Your task to perform on an android device: Toggle the flashlight Image 0: 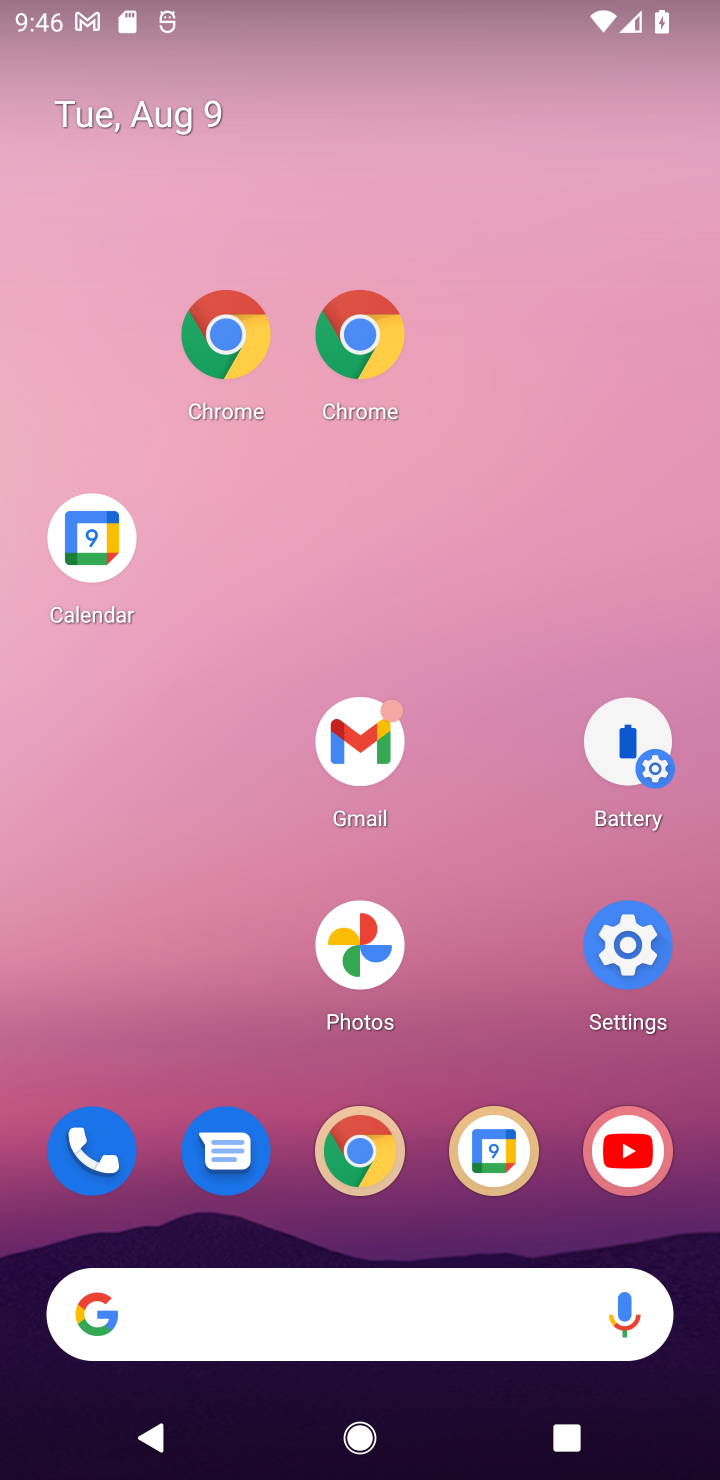
Step 0: drag from (508, 1414) to (358, 449)
Your task to perform on an android device: Toggle the flashlight Image 1: 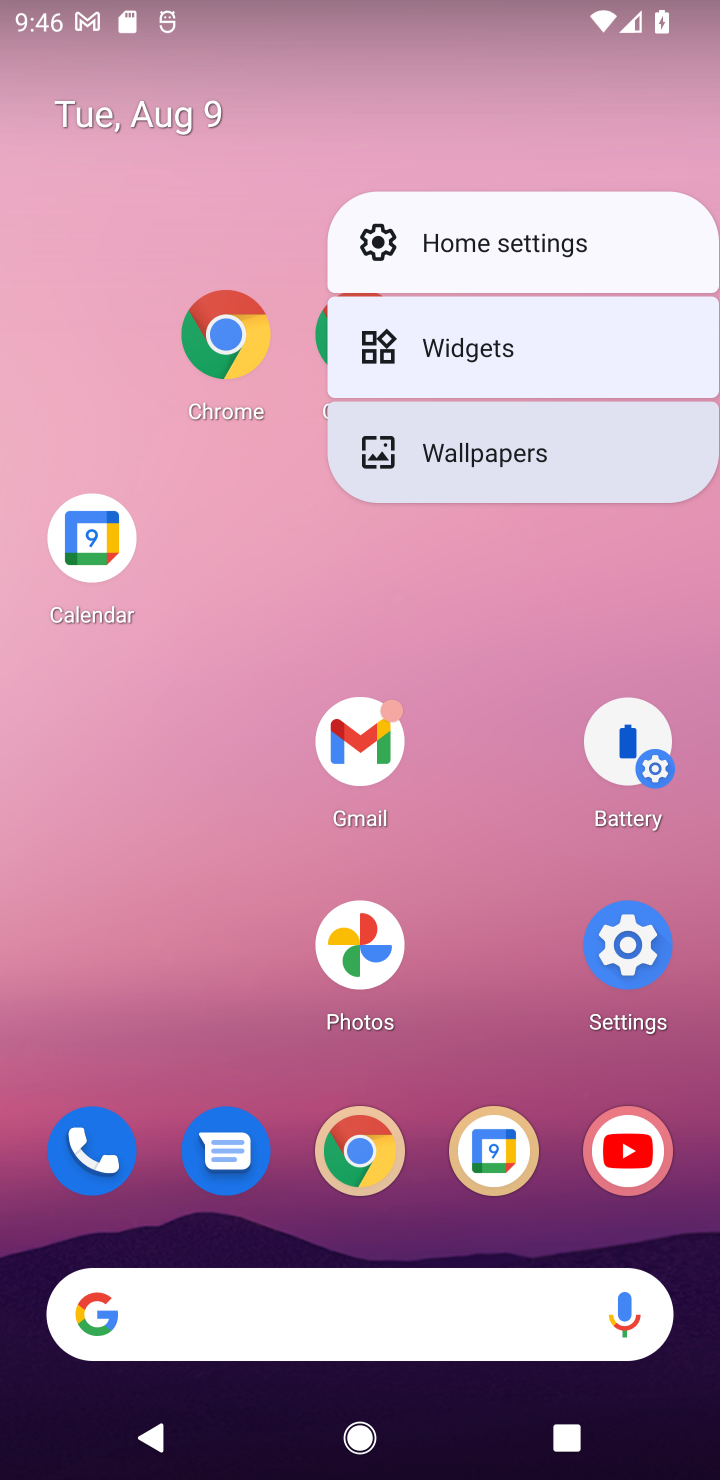
Step 1: drag from (296, 456) to (447, 664)
Your task to perform on an android device: Toggle the flashlight Image 2: 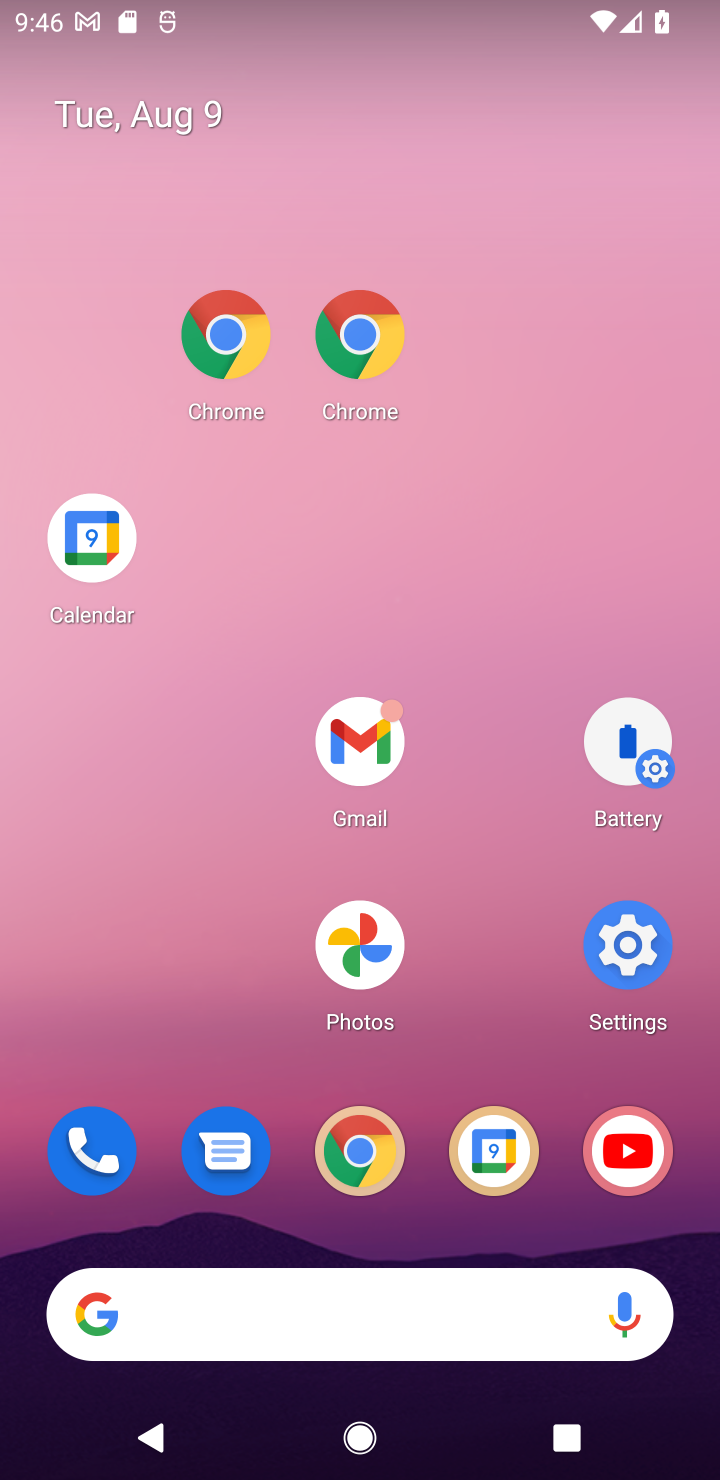
Step 2: click (391, 745)
Your task to perform on an android device: Toggle the flashlight Image 3: 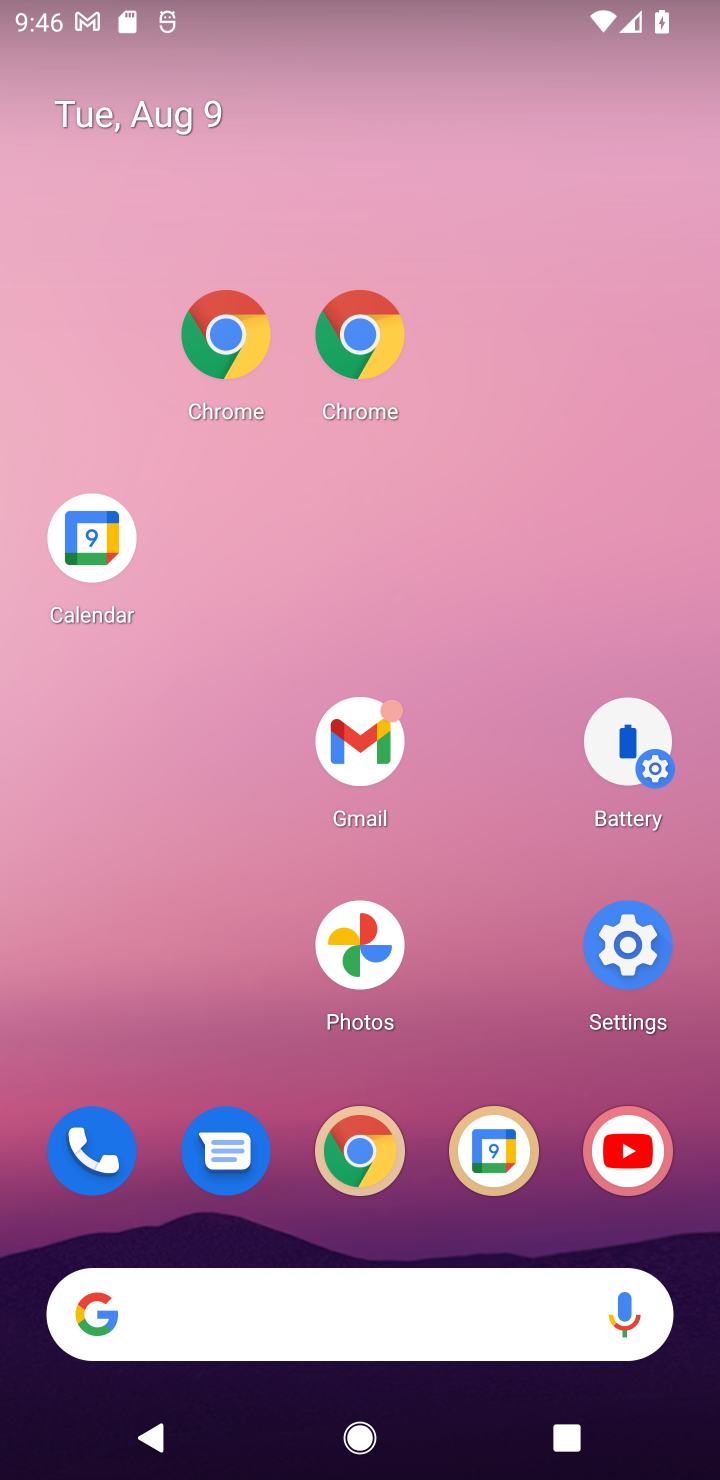
Step 3: drag from (375, 914) to (396, 605)
Your task to perform on an android device: Toggle the flashlight Image 4: 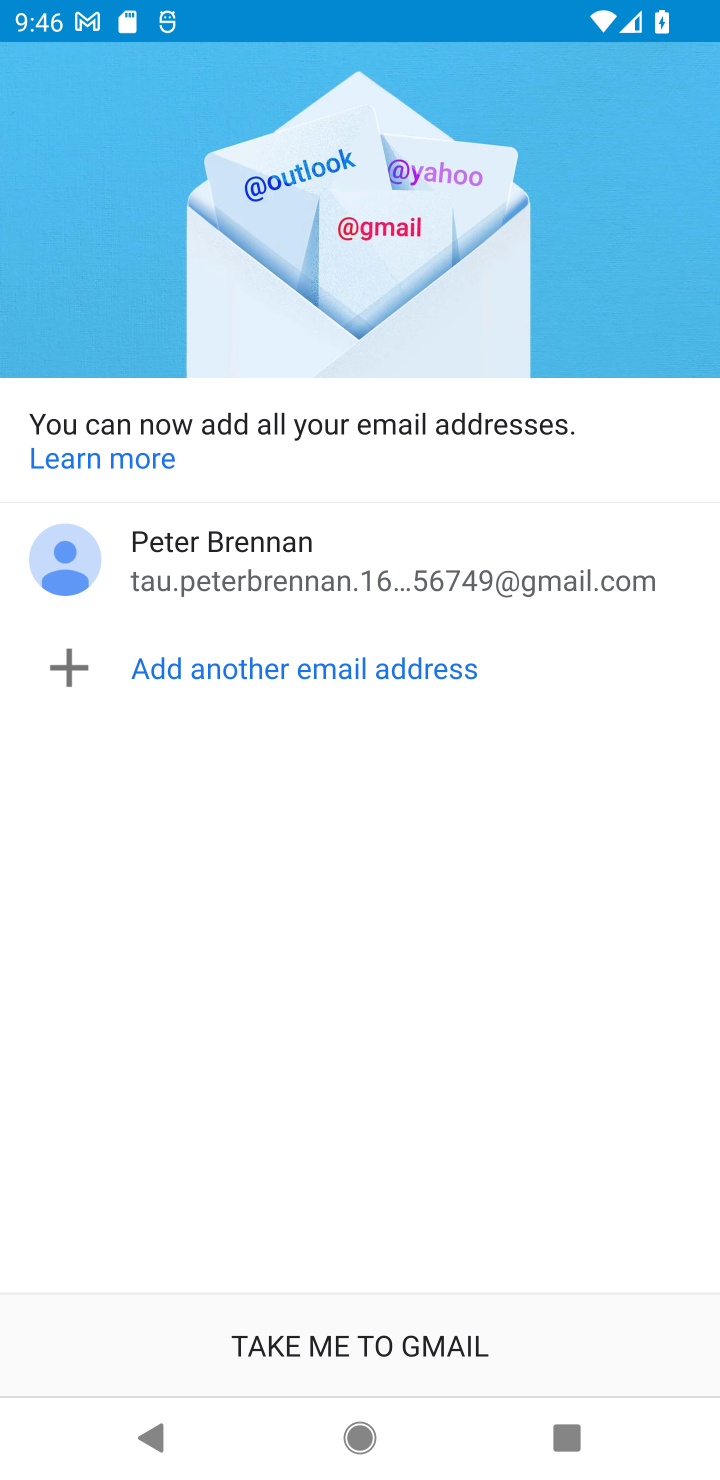
Step 4: drag from (528, 1025) to (528, 702)
Your task to perform on an android device: Toggle the flashlight Image 5: 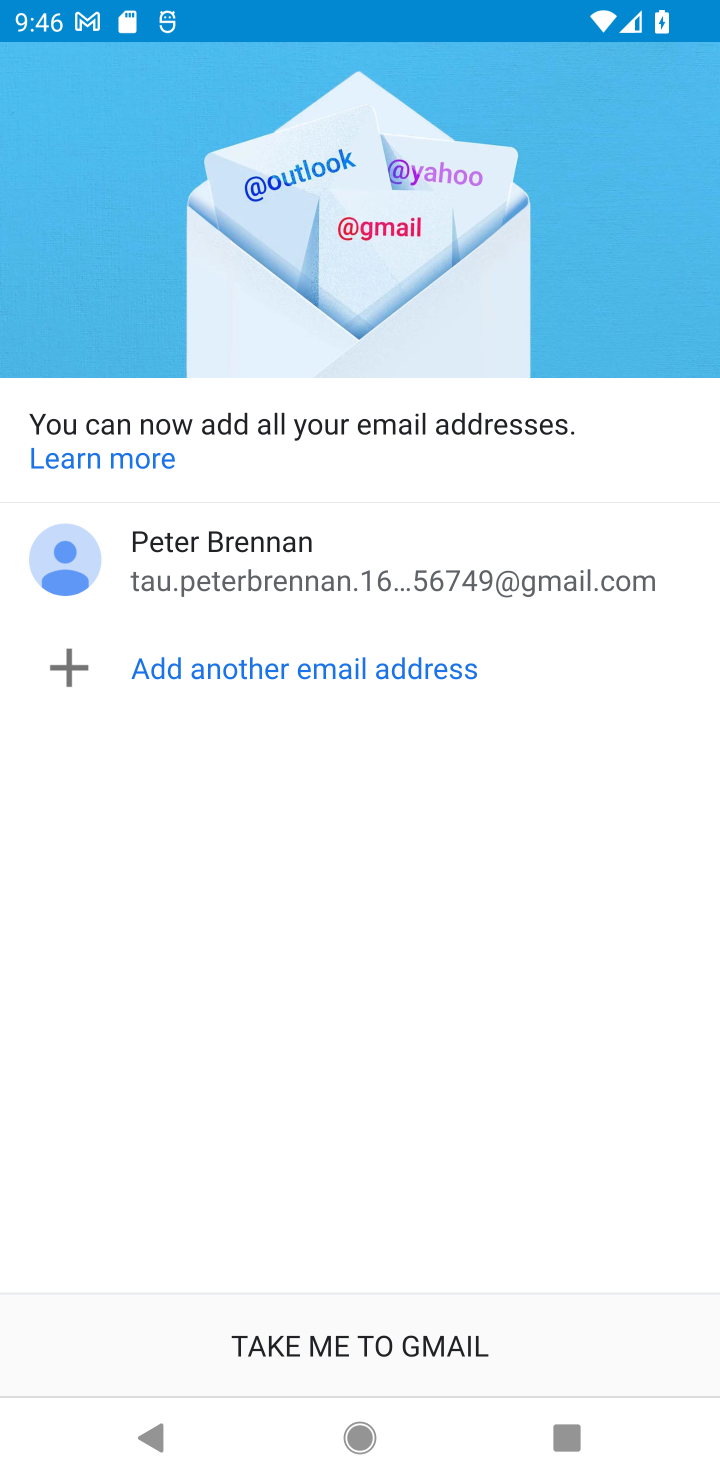
Step 5: drag from (645, 1084) to (685, 655)
Your task to perform on an android device: Toggle the flashlight Image 6: 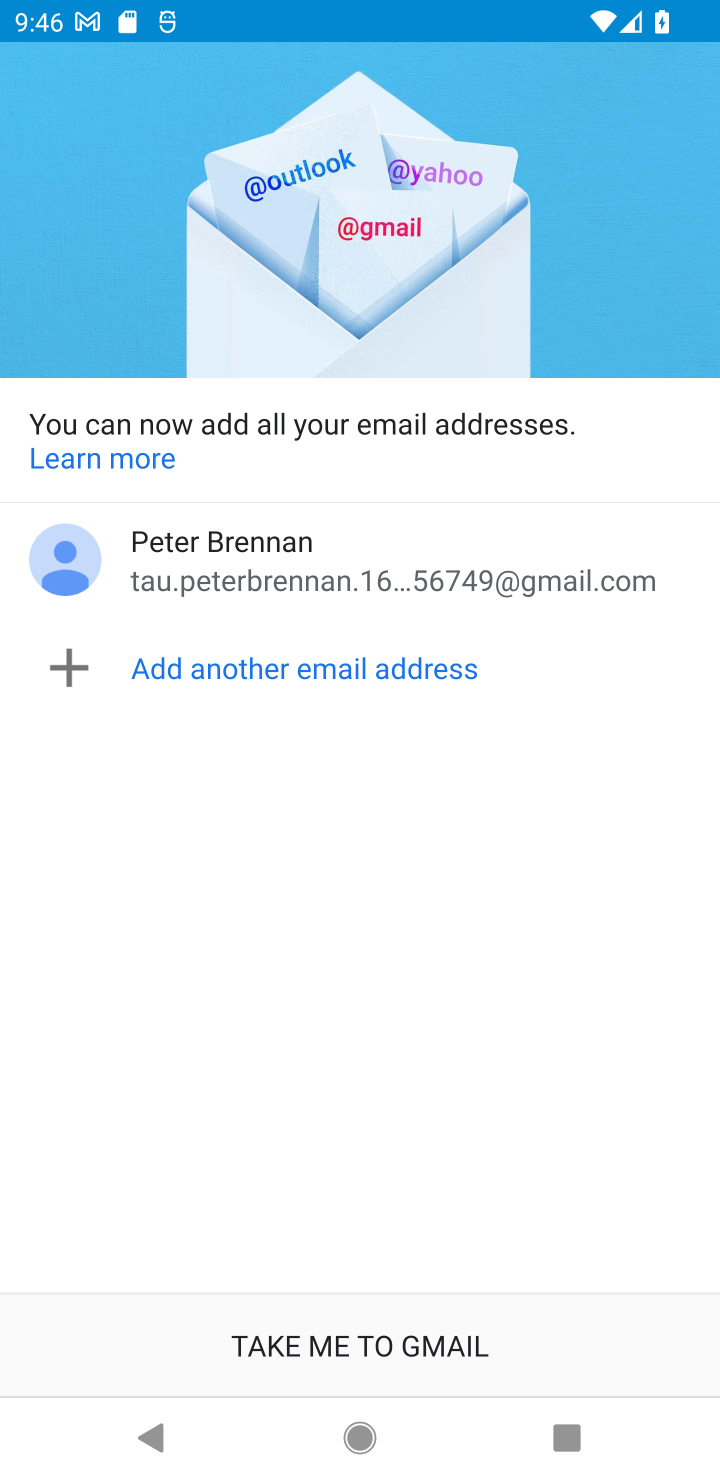
Step 6: click (674, 691)
Your task to perform on an android device: Toggle the flashlight Image 7: 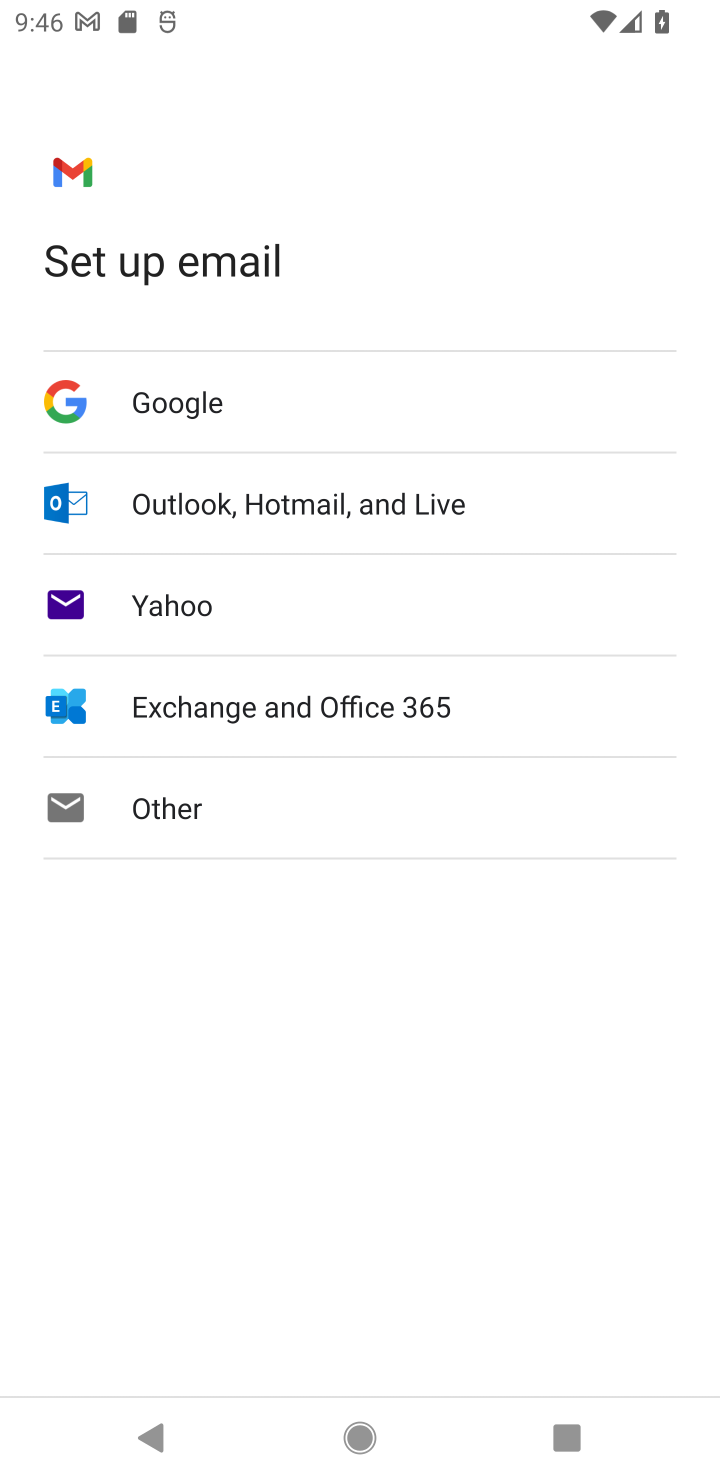
Step 7: task complete